Your task to perform on an android device: uninstall "Google Chrome" Image 0: 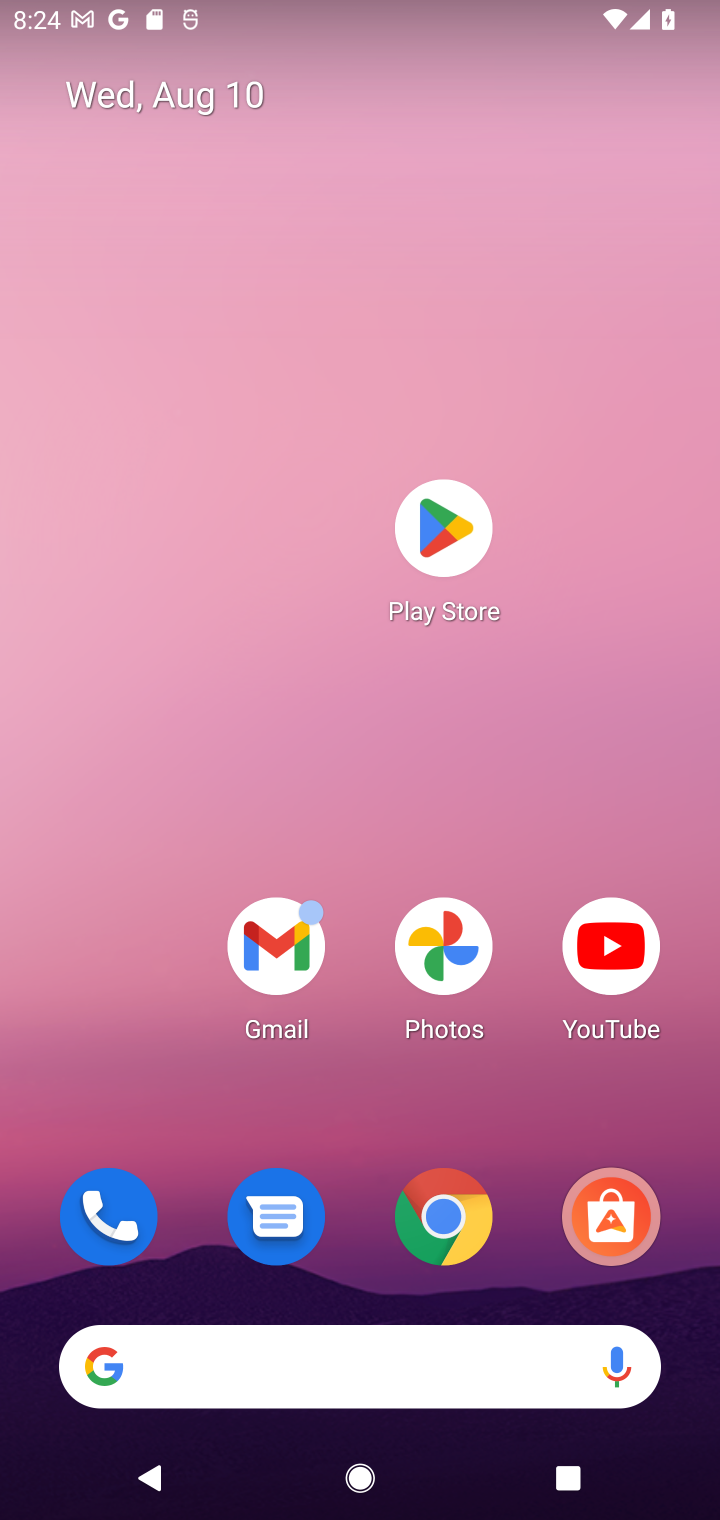
Step 0: click (437, 529)
Your task to perform on an android device: uninstall "Google Chrome" Image 1: 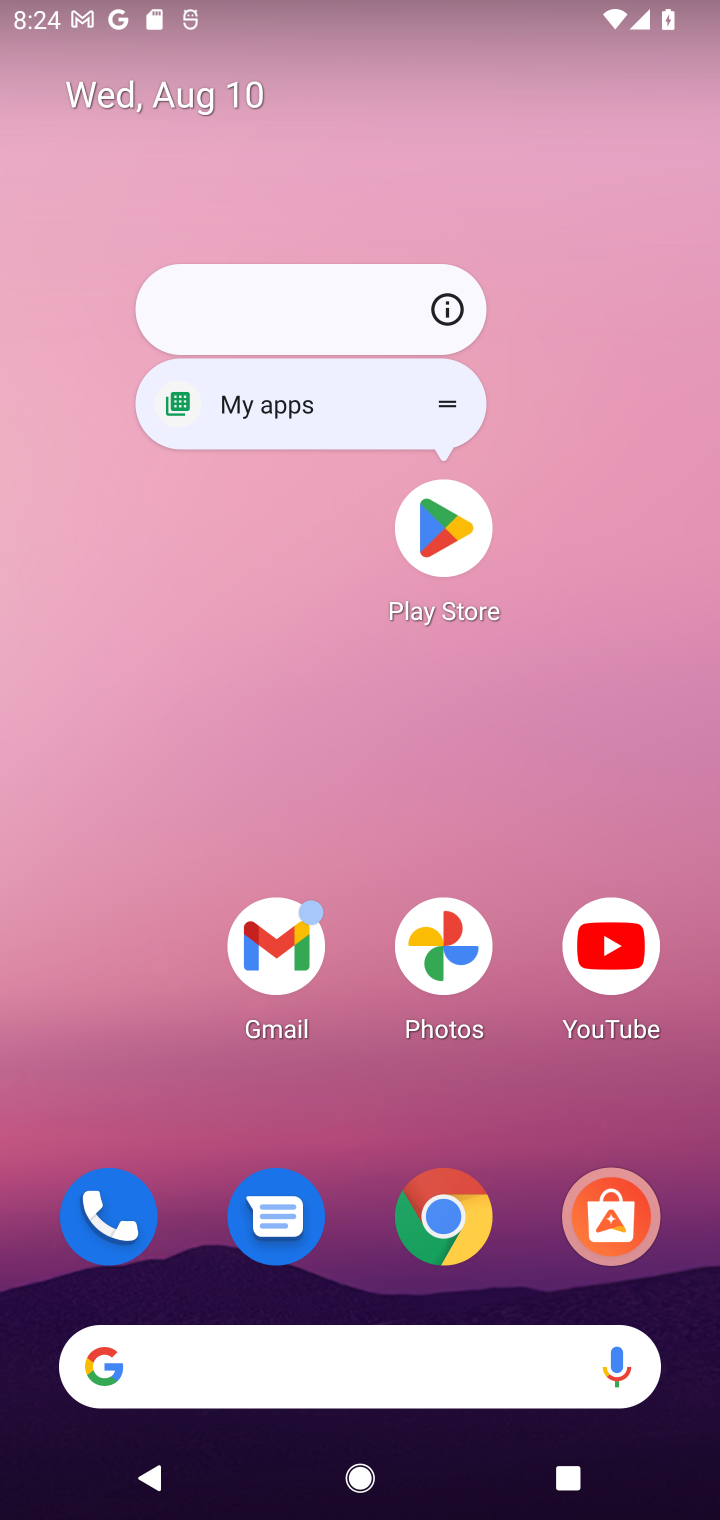
Step 1: click (438, 517)
Your task to perform on an android device: uninstall "Google Chrome" Image 2: 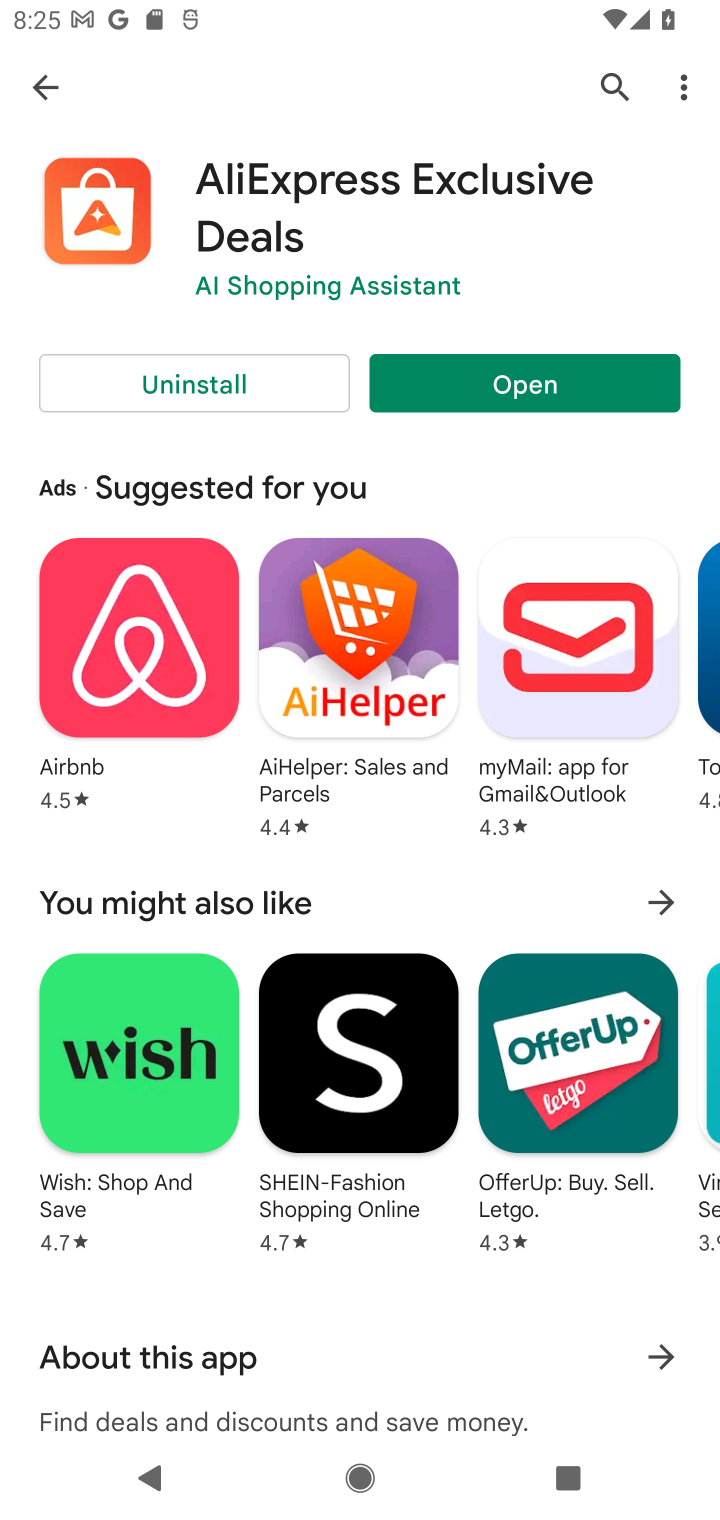
Step 2: click (597, 78)
Your task to perform on an android device: uninstall "Google Chrome" Image 3: 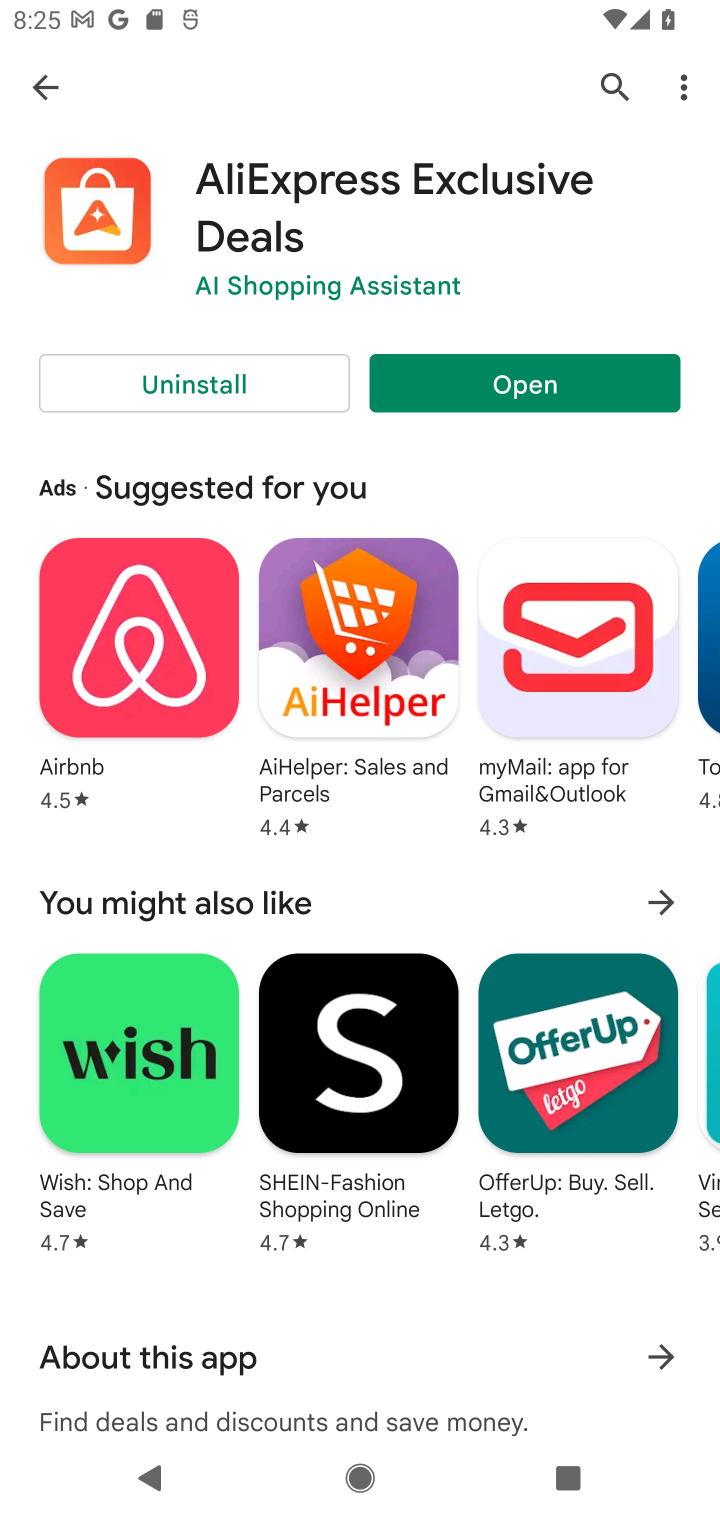
Step 3: click (597, 80)
Your task to perform on an android device: uninstall "Google Chrome" Image 4: 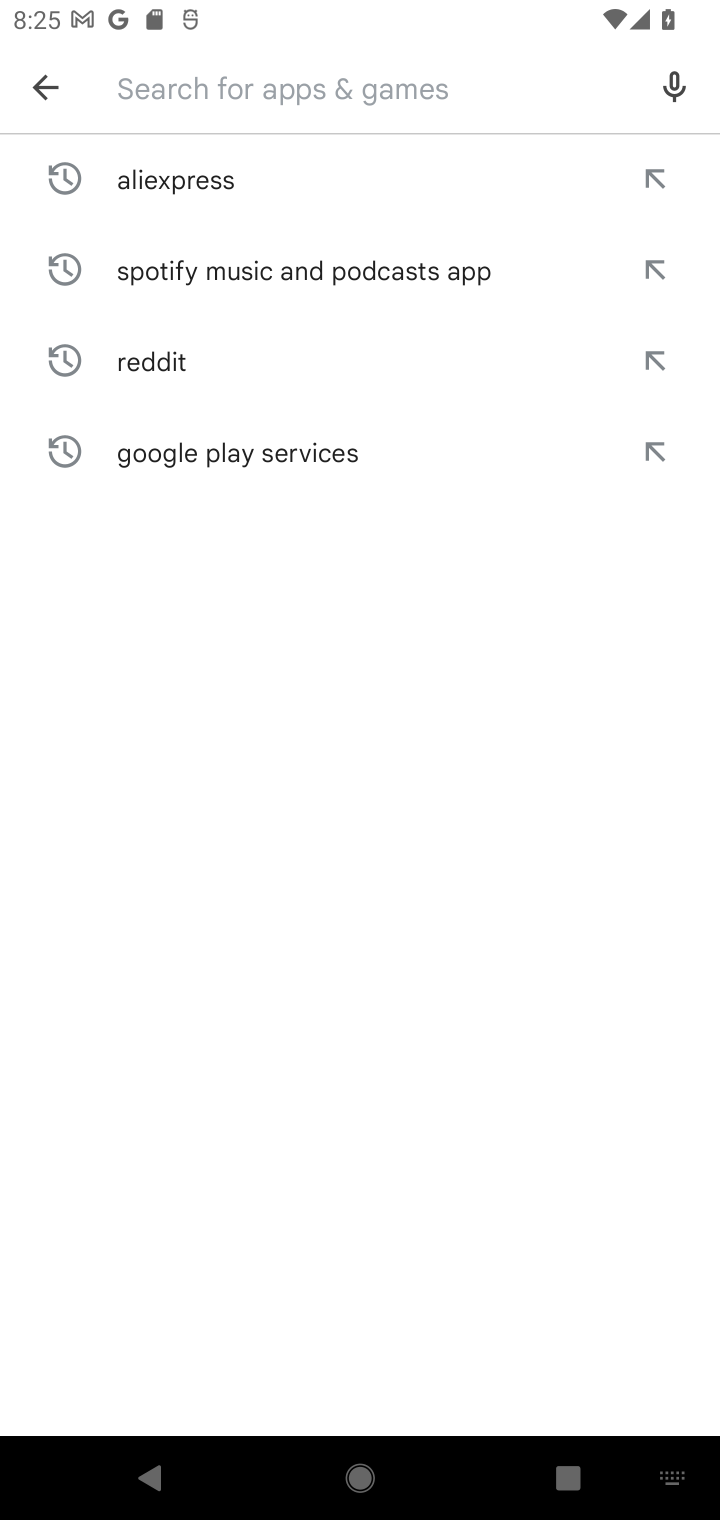
Step 4: type "Google Chrome"
Your task to perform on an android device: uninstall "Google Chrome" Image 5: 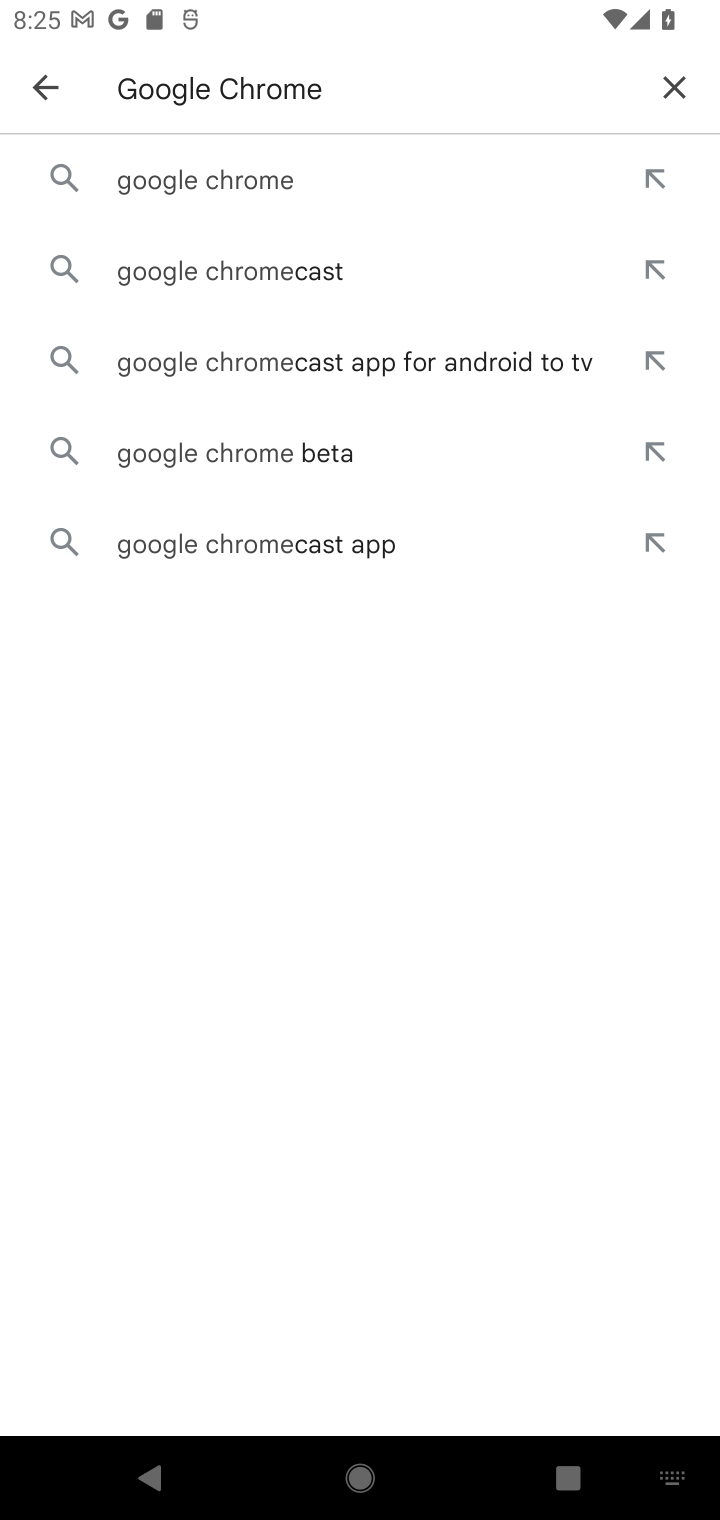
Step 5: click (160, 180)
Your task to perform on an android device: uninstall "Google Chrome" Image 6: 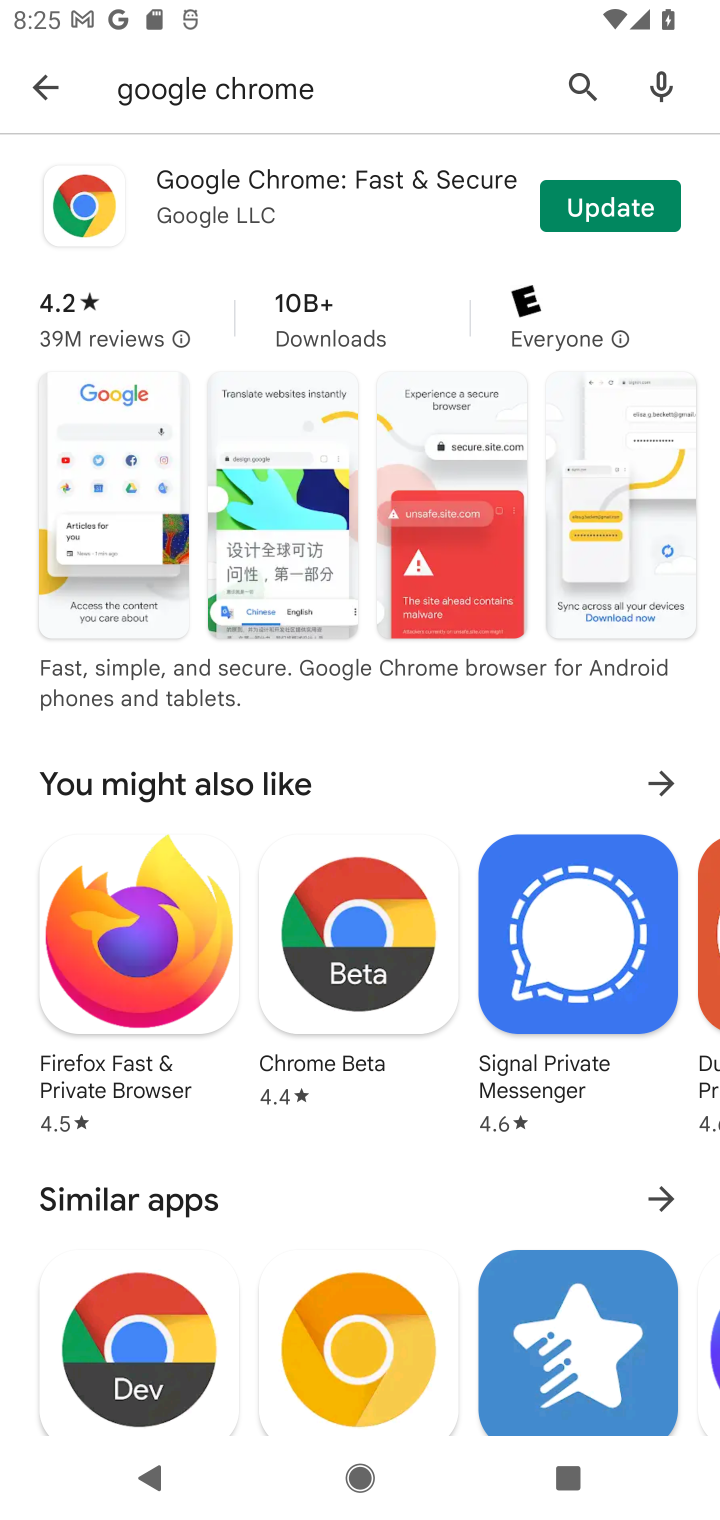
Step 6: click (178, 184)
Your task to perform on an android device: uninstall "Google Chrome" Image 7: 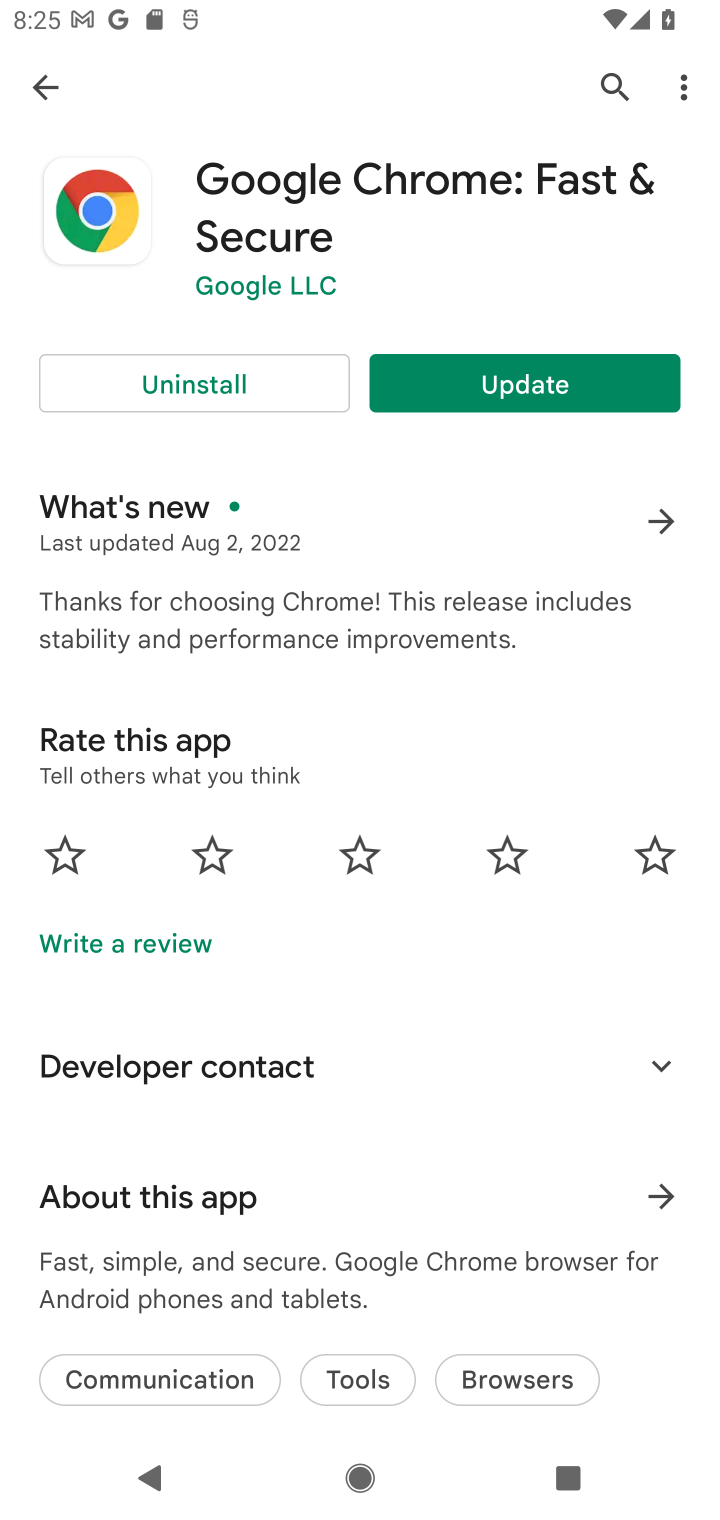
Step 7: task complete